Your task to perform on an android device: change the clock display to analog Image 0: 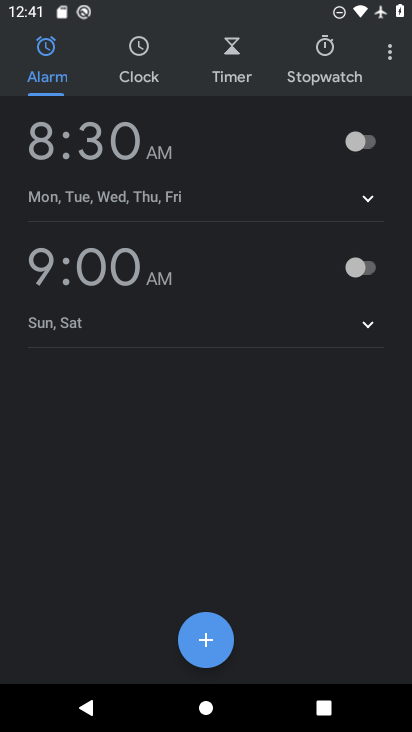
Step 0: press home button
Your task to perform on an android device: change the clock display to analog Image 1: 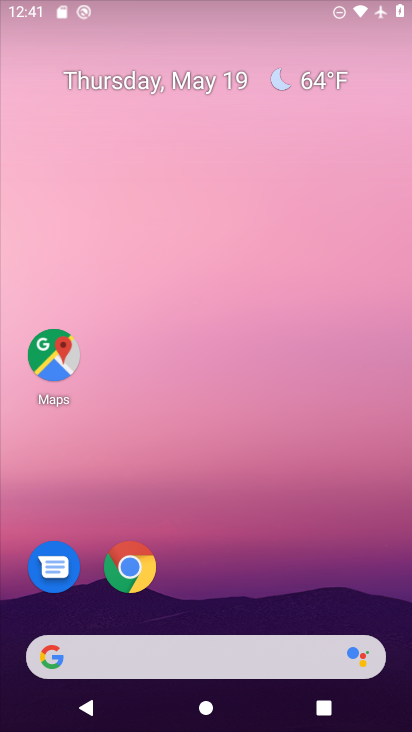
Step 1: drag from (316, 598) to (323, 72)
Your task to perform on an android device: change the clock display to analog Image 2: 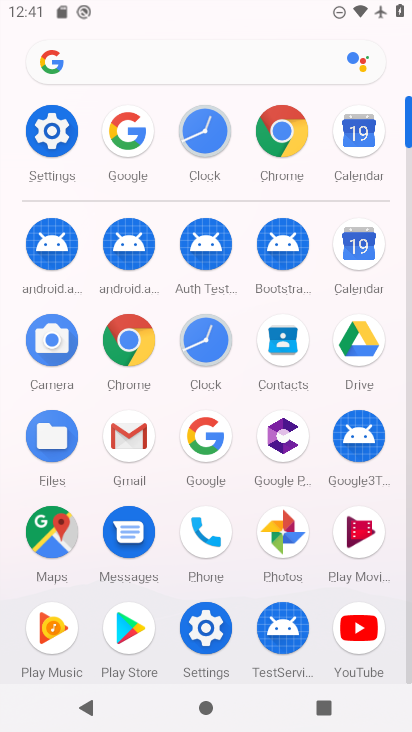
Step 2: click (197, 357)
Your task to perform on an android device: change the clock display to analog Image 3: 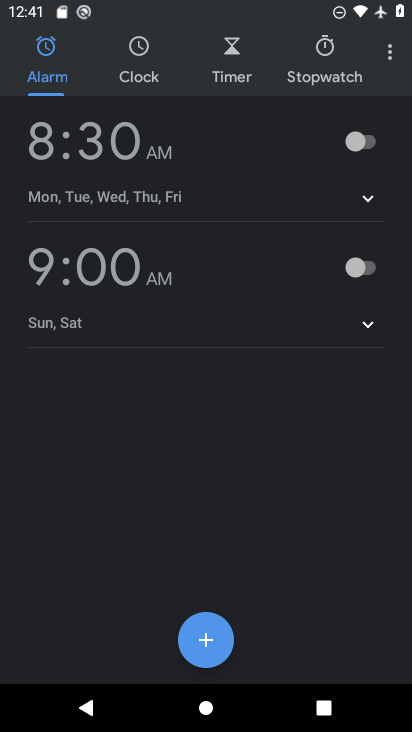
Step 3: drag from (390, 65) to (347, 100)
Your task to perform on an android device: change the clock display to analog Image 4: 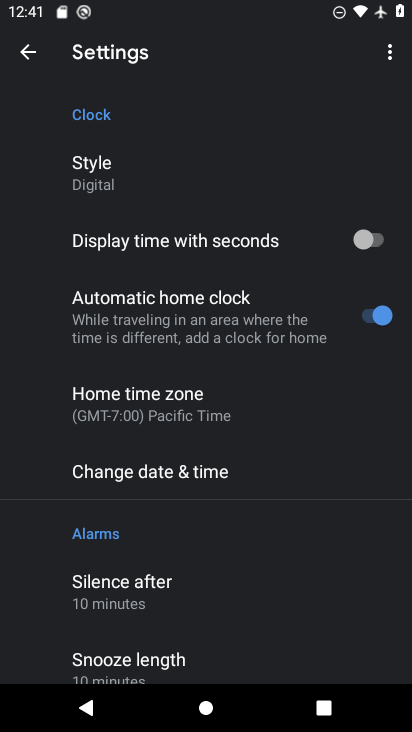
Step 4: click (124, 172)
Your task to perform on an android device: change the clock display to analog Image 5: 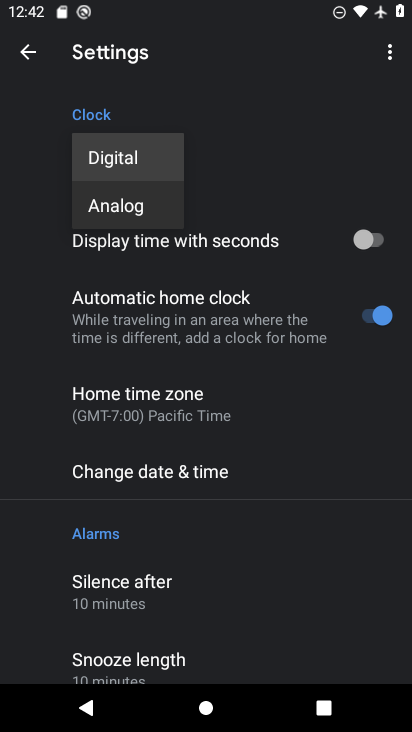
Step 5: click (141, 214)
Your task to perform on an android device: change the clock display to analog Image 6: 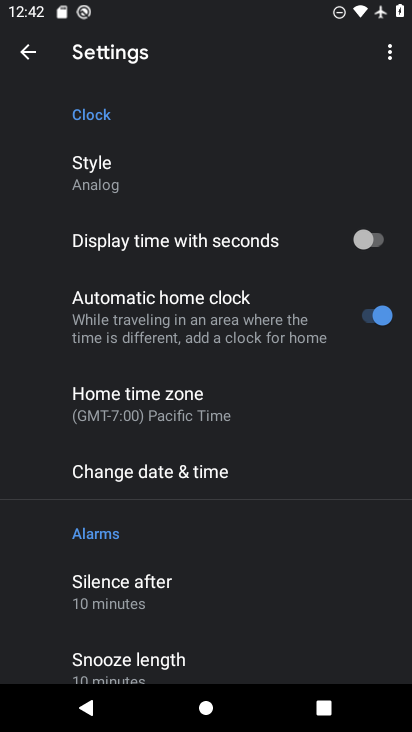
Step 6: task complete